Your task to perform on an android device: show emergency info Image 0: 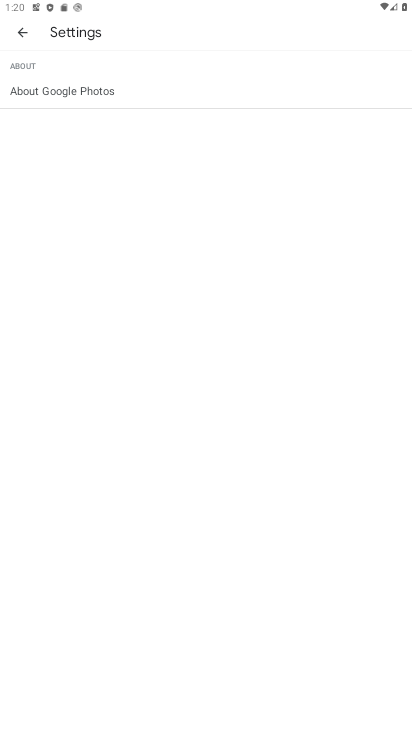
Step 0: press home button
Your task to perform on an android device: show emergency info Image 1: 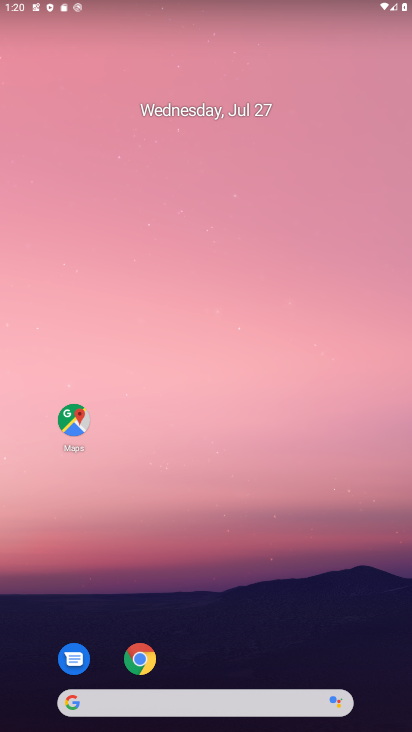
Step 1: drag from (286, 74) to (289, 29)
Your task to perform on an android device: show emergency info Image 2: 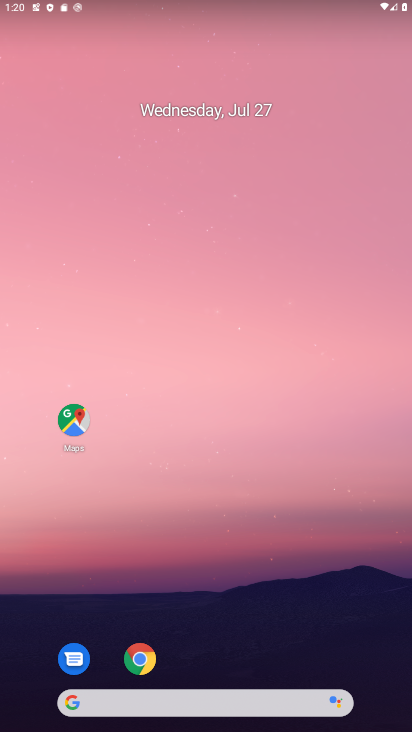
Step 2: drag from (284, 603) to (230, 49)
Your task to perform on an android device: show emergency info Image 3: 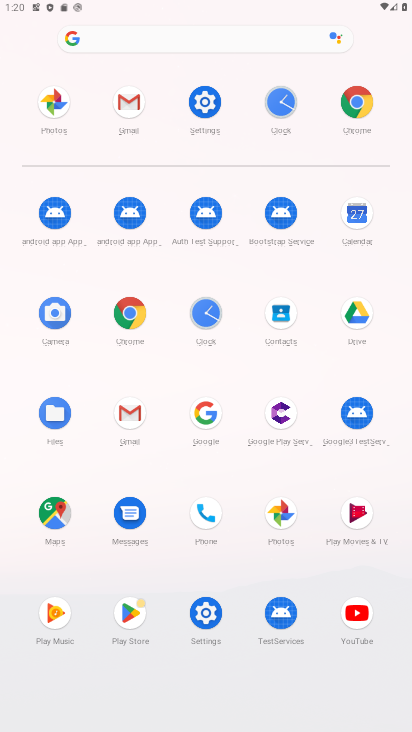
Step 3: click (201, 109)
Your task to perform on an android device: show emergency info Image 4: 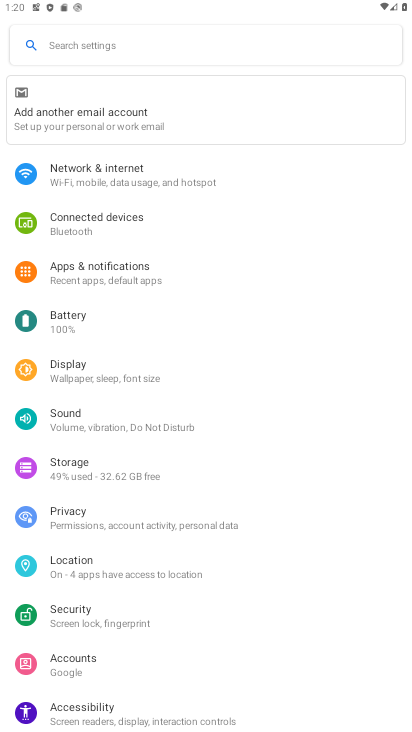
Step 4: drag from (224, 580) to (261, 153)
Your task to perform on an android device: show emergency info Image 5: 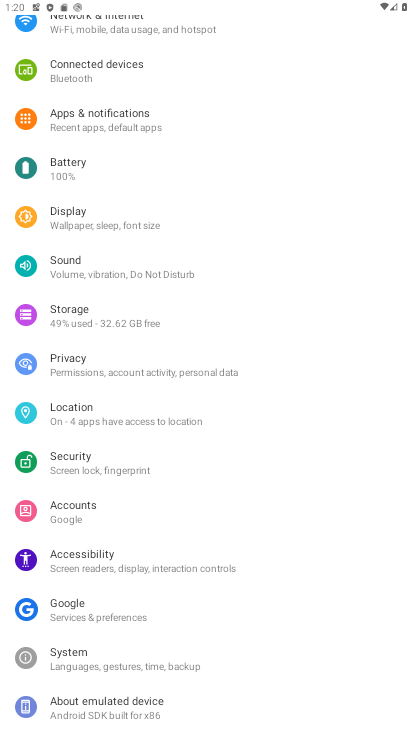
Step 5: click (120, 701)
Your task to perform on an android device: show emergency info Image 6: 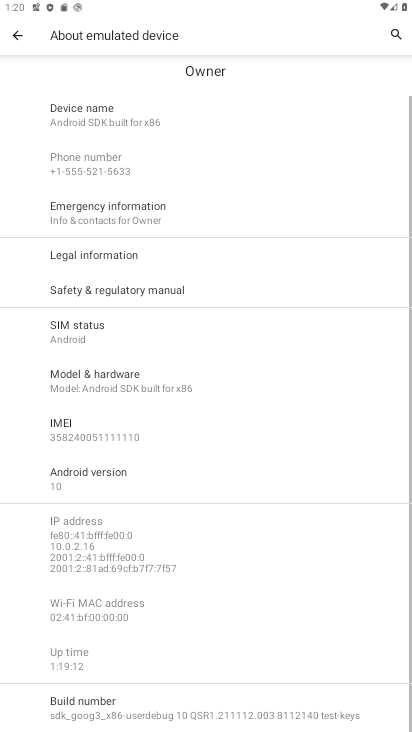
Step 6: click (129, 213)
Your task to perform on an android device: show emergency info Image 7: 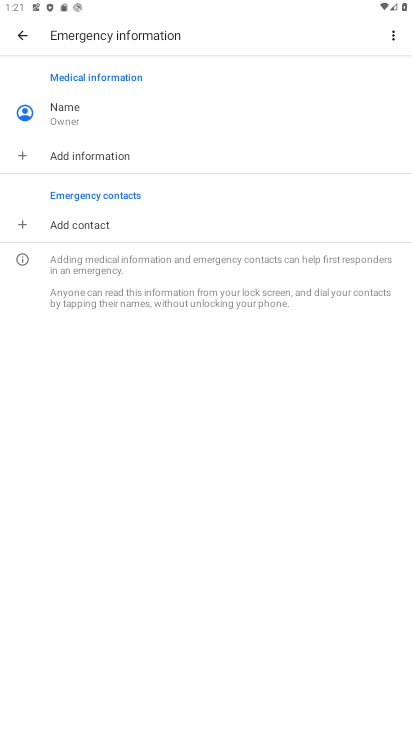
Step 7: task complete